Your task to perform on an android device: What is the recent news? Image 0: 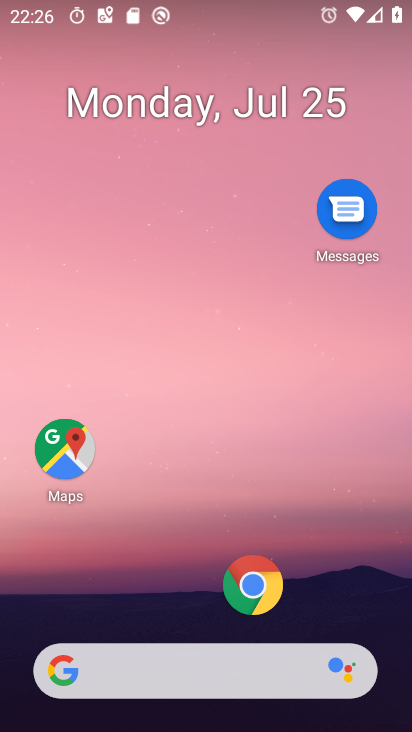
Step 0: click (132, 658)
Your task to perform on an android device: What is the recent news? Image 1: 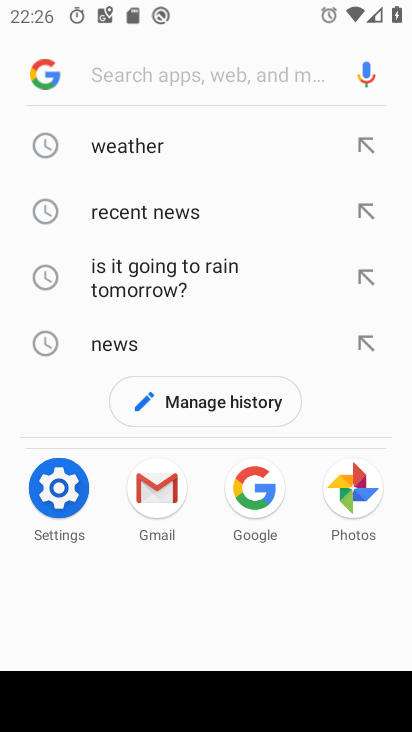
Step 1: click (176, 212)
Your task to perform on an android device: What is the recent news? Image 2: 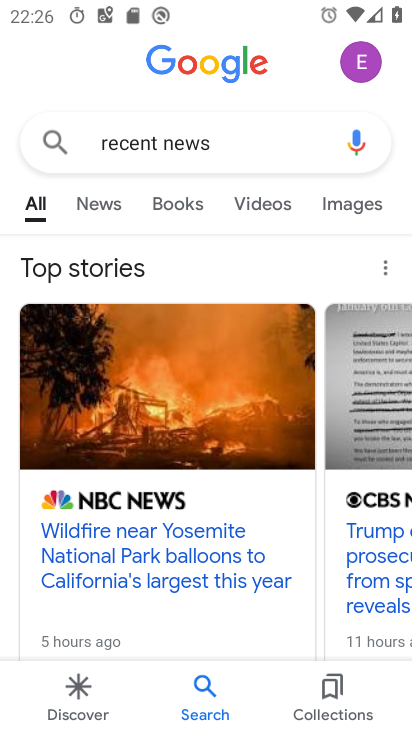
Step 2: click (104, 208)
Your task to perform on an android device: What is the recent news? Image 3: 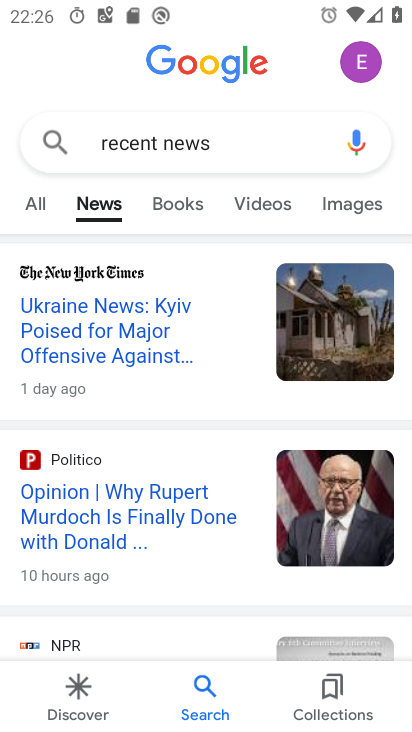
Step 3: task complete